Your task to perform on an android device: Show me popular videos on Youtube Image 0: 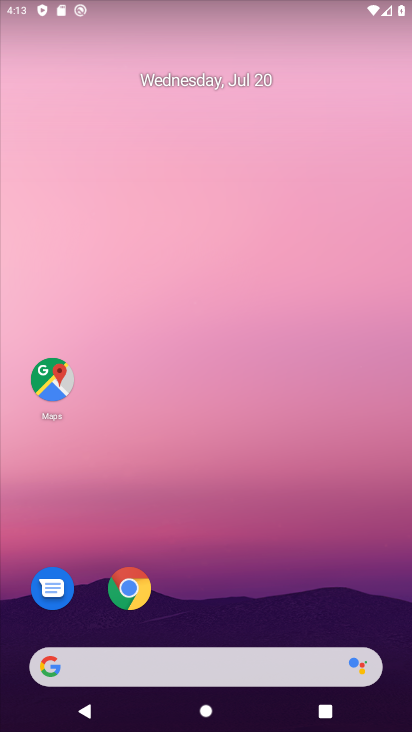
Step 0: drag from (240, 627) to (302, 108)
Your task to perform on an android device: Show me popular videos on Youtube Image 1: 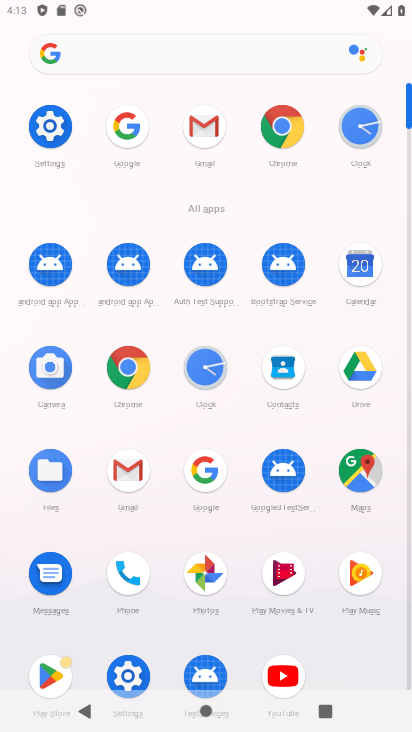
Step 1: click (281, 670)
Your task to perform on an android device: Show me popular videos on Youtube Image 2: 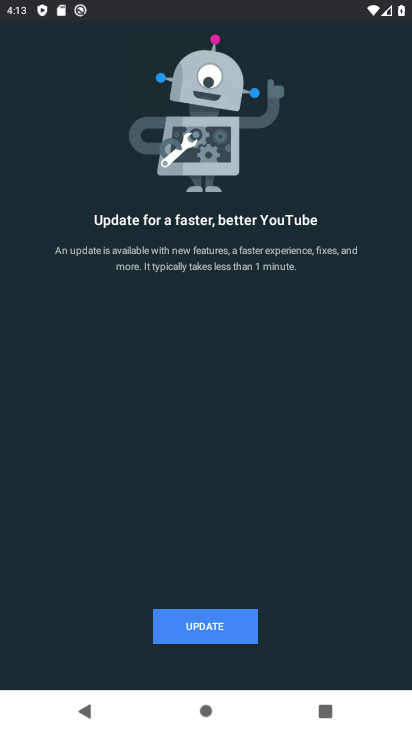
Step 2: click (206, 627)
Your task to perform on an android device: Show me popular videos on Youtube Image 3: 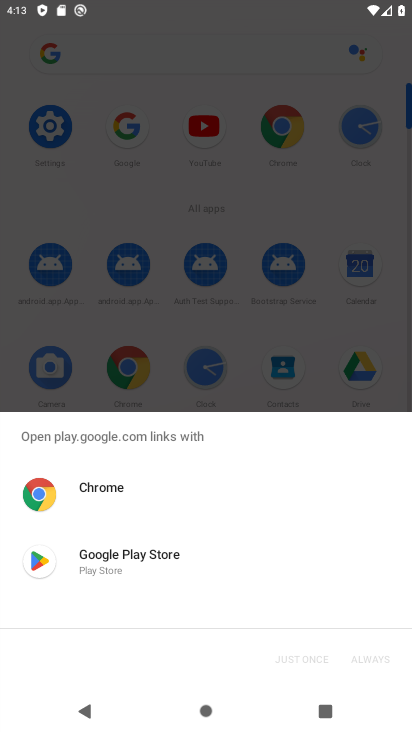
Step 3: click (88, 568)
Your task to perform on an android device: Show me popular videos on Youtube Image 4: 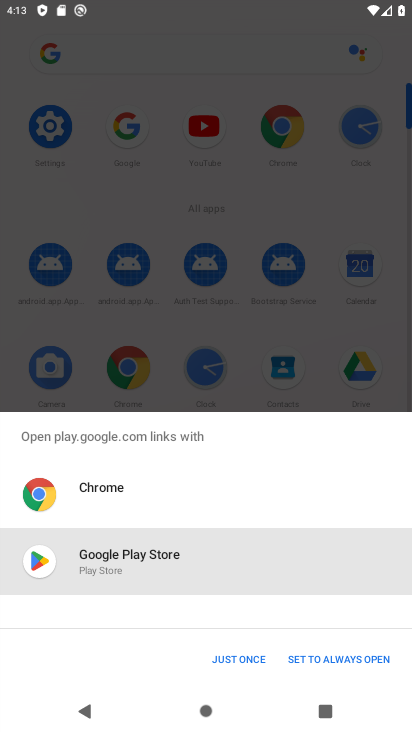
Step 4: click (233, 661)
Your task to perform on an android device: Show me popular videos on Youtube Image 5: 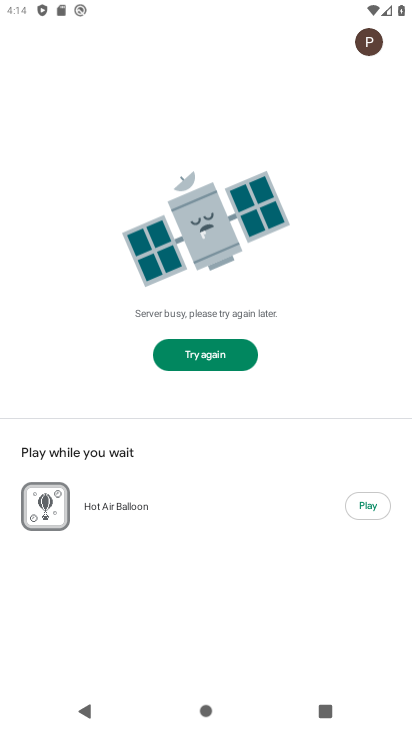
Step 5: task complete